Your task to perform on an android device: check google app version Image 0: 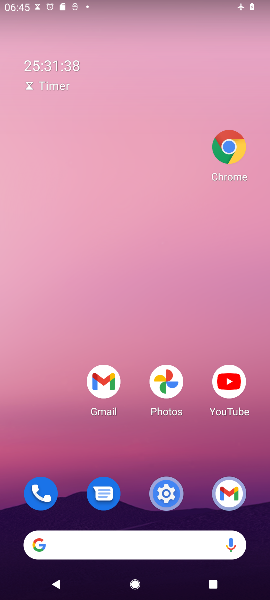
Step 0: press home button
Your task to perform on an android device: check google app version Image 1: 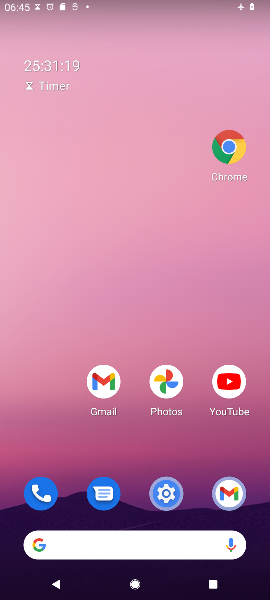
Step 1: drag from (234, 432) to (268, 85)
Your task to perform on an android device: check google app version Image 2: 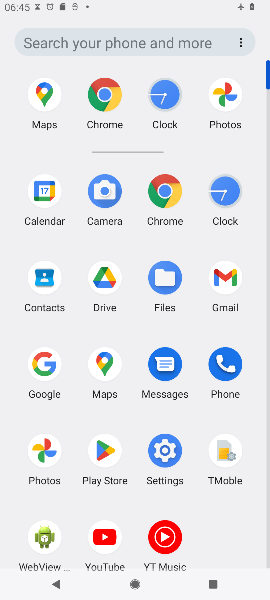
Step 2: click (40, 369)
Your task to perform on an android device: check google app version Image 3: 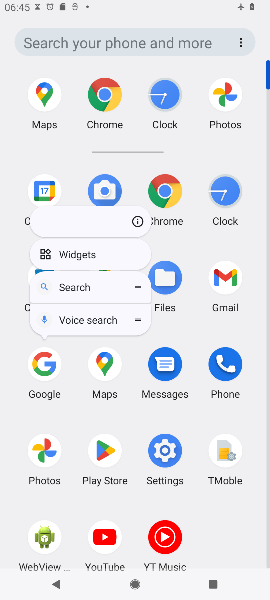
Step 3: click (144, 219)
Your task to perform on an android device: check google app version Image 4: 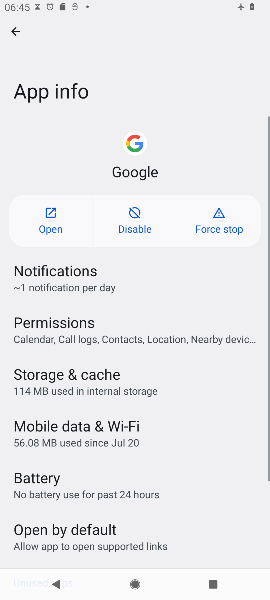
Step 4: task complete